Your task to perform on an android device: turn on translation in the chrome app Image 0: 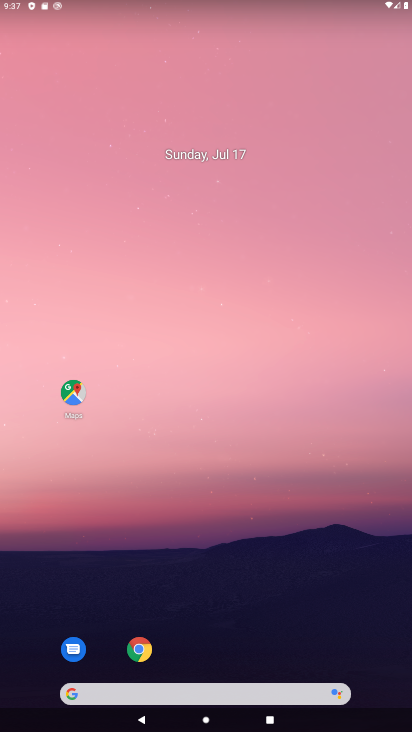
Step 0: click (131, 648)
Your task to perform on an android device: turn on translation in the chrome app Image 1: 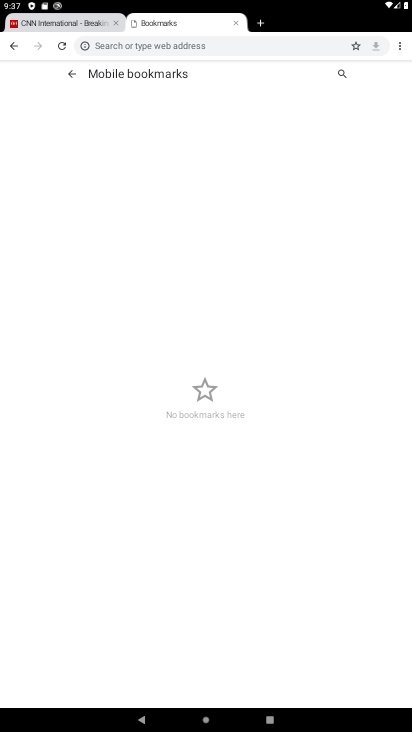
Step 1: click (397, 43)
Your task to perform on an android device: turn on translation in the chrome app Image 2: 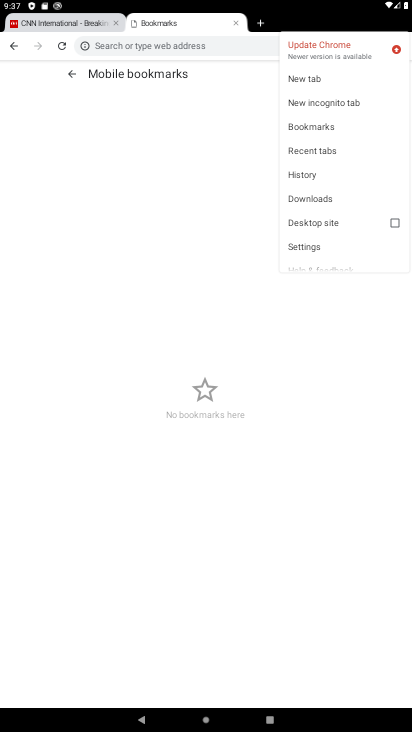
Step 2: click (311, 245)
Your task to perform on an android device: turn on translation in the chrome app Image 3: 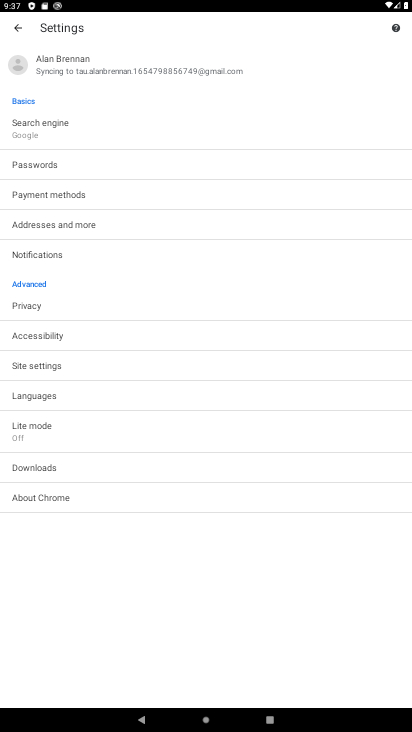
Step 3: click (35, 392)
Your task to perform on an android device: turn on translation in the chrome app Image 4: 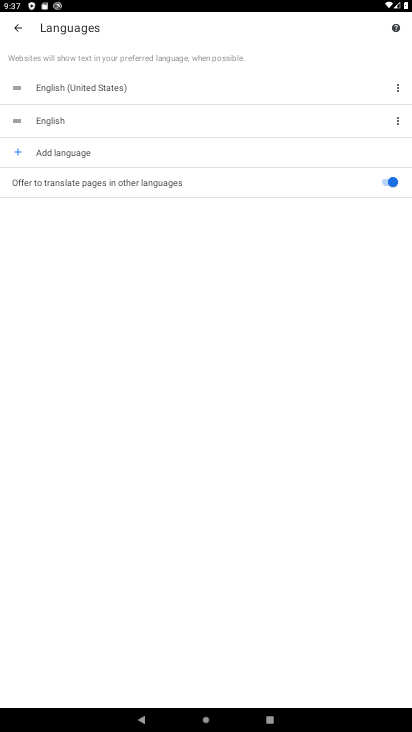
Step 4: task complete